Your task to perform on an android device: turn off priority inbox in the gmail app Image 0: 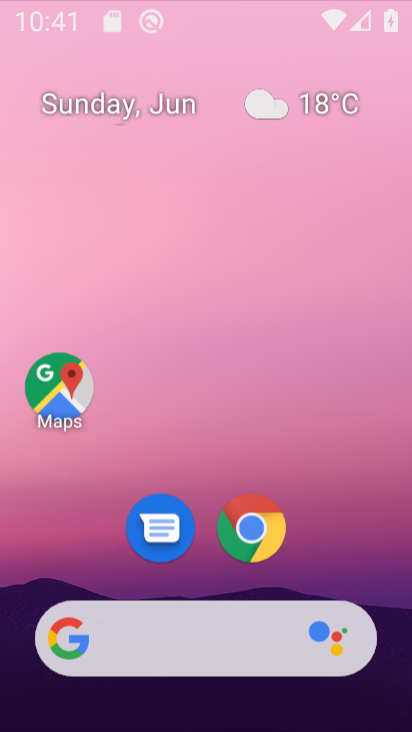
Step 0: drag from (229, 205) to (250, 148)
Your task to perform on an android device: turn off priority inbox in the gmail app Image 1: 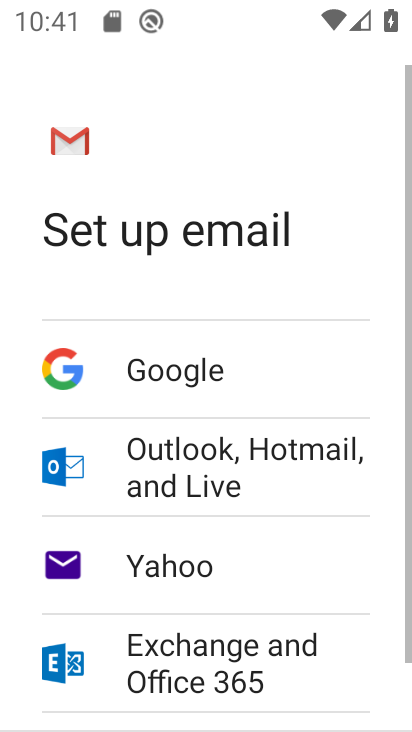
Step 1: press home button
Your task to perform on an android device: turn off priority inbox in the gmail app Image 2: 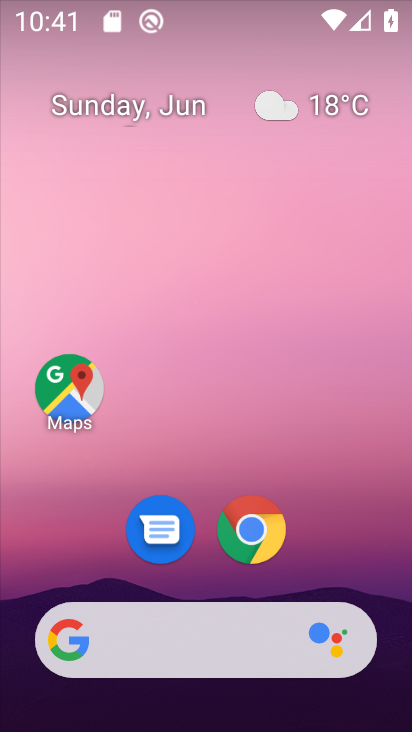
Step 2: drag from (77, 624) to (164, 194)
Your task to perform on an android device: turn off priority inbox in the gmail app Image 3: 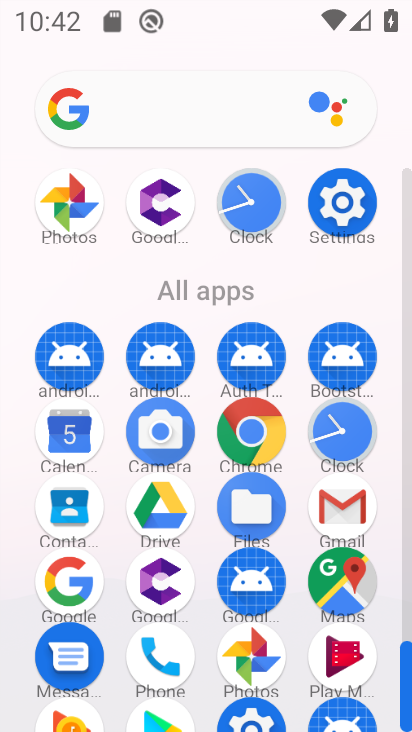
Step 3: click (350, 516)
Your task to perform on an android device: turn off priority inbox in the gmail app Image 4: 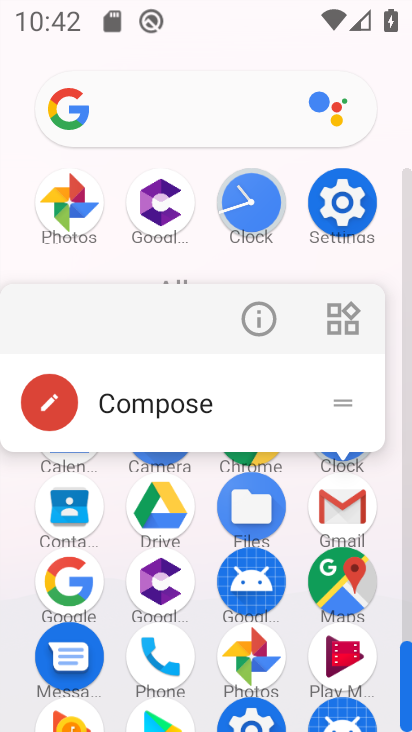
Step 4: click (342, 524)
Your task to perform on an android device: turn off priority inbox in the gmail app Image 5: 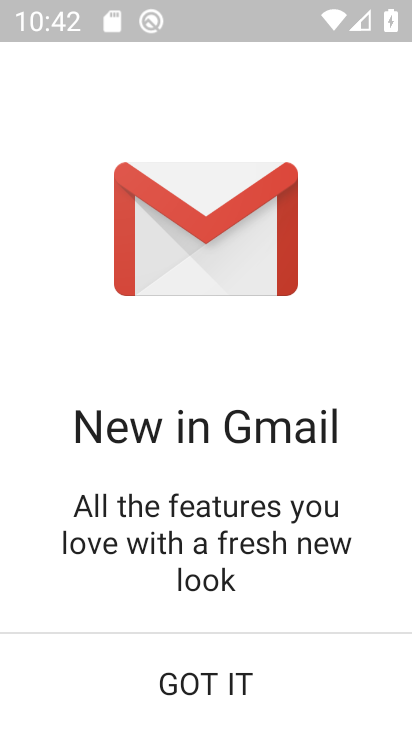
Step 5: click (244, 688)
Your task to perform on an android device: turn off priority inbox in the gmail app Image 6: 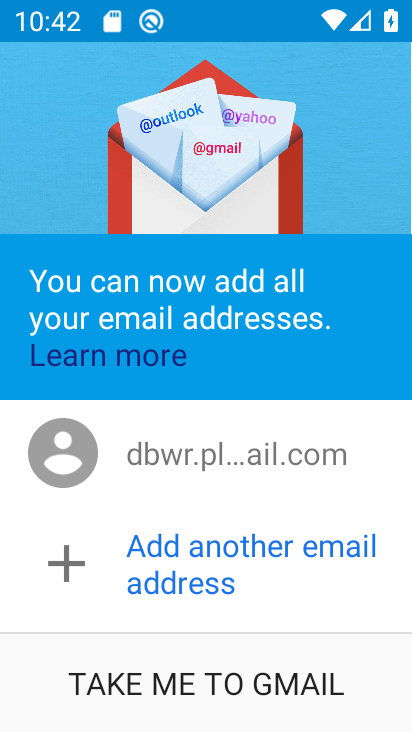
Step 6: click (243, 686)
Your task to perform on an android device: turn off priority inbox in the gmail app Image 7: 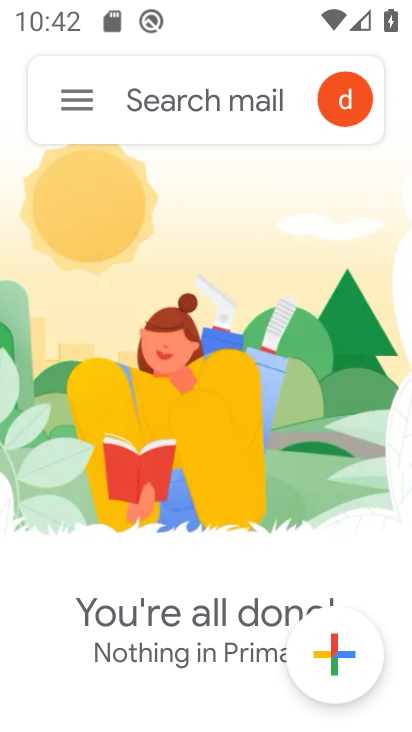
Step 7: click (92, 103)
Your task to perform on an android device: turn off priority inbox in the gmail app Image 8: 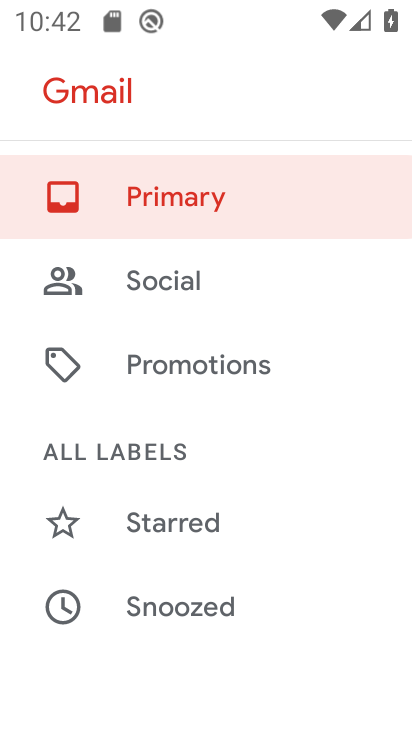
Step 8: drag from (155, 633) to (281, 152)
Your task to perform on an android device: turn off priority inbox in the gmail app Image 9: 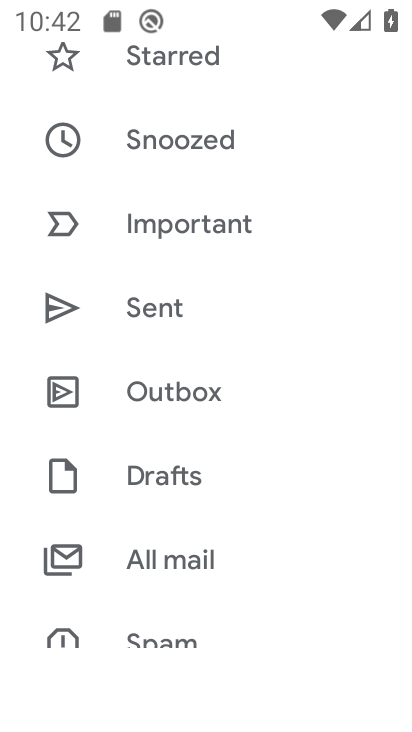
Step 9: drag from (210, 602) to (293, 137)
Your task to perform on an android device: turn off priority inbox in the gmail app Image 10: 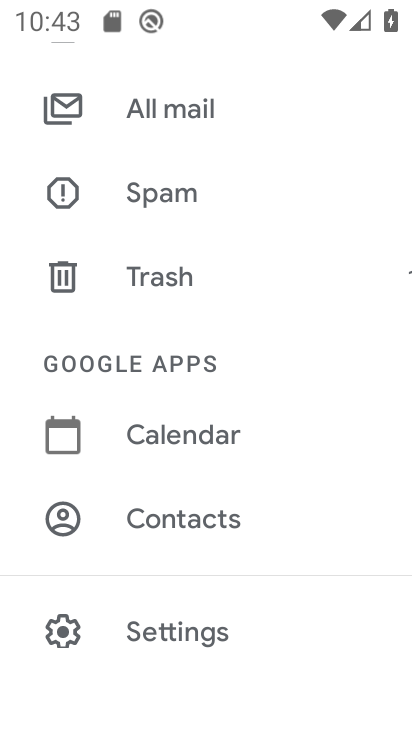
Step 10: click (142, 627)
Your task to perform on an android device: turn off priority inbox in the gmail app Image 11: 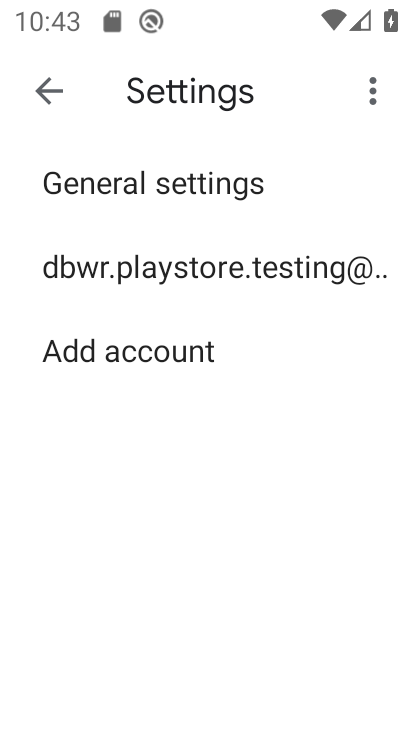
Step 11: click (249, 278)
Your task to perform on an android device: turn off priority inbox in the gmail app Image 12: 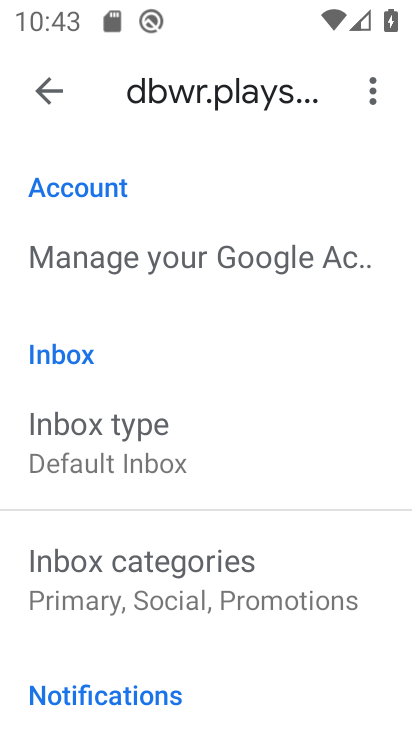
Step 12: drag from (239, 578) to (294, 348)
Your task to perform on an android device: turn off priority inbox in the gmail app Image 13: 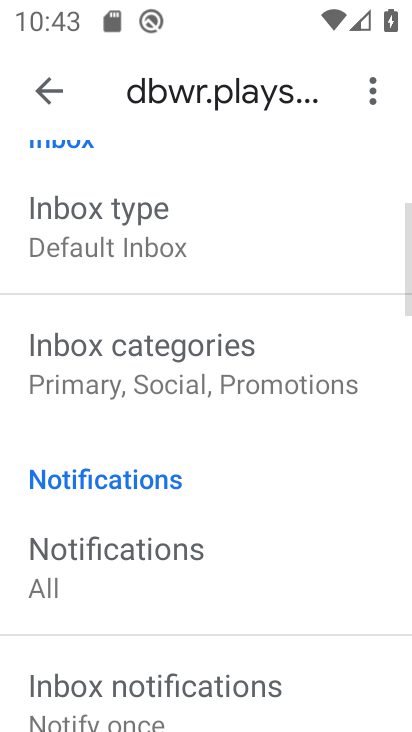
Step 13: click (193, 258)
Your task to perform on an android device: turn off priority inbox in the gmail app Image 14: 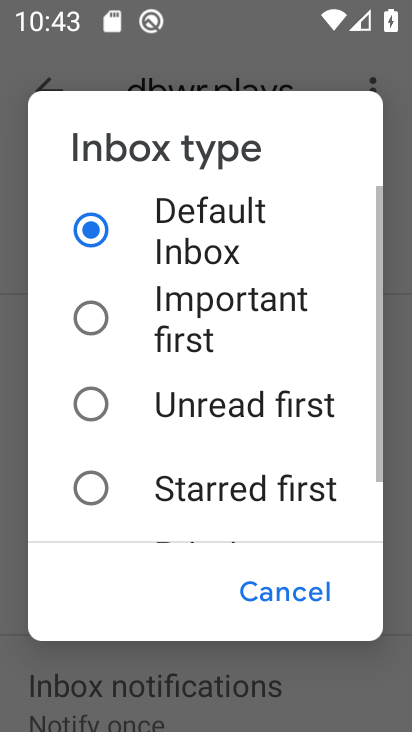
Step 14: task complete